Your task to perform on an android device: toggle data saver in the chrome app Image 0: 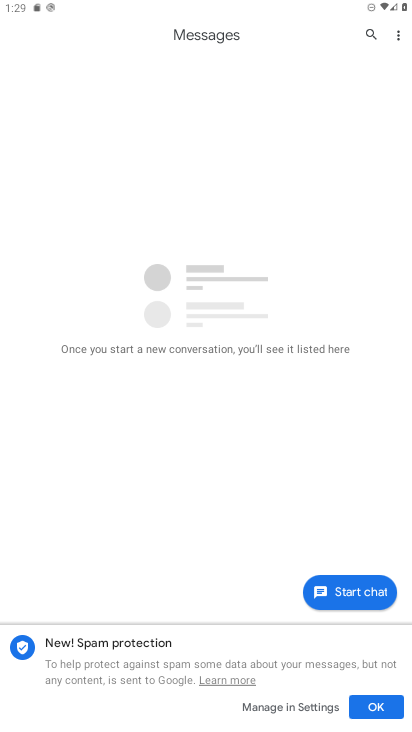
Step 0: press home button
Your task to perform on an android device: toggle data saver in the chrome app Image 1: 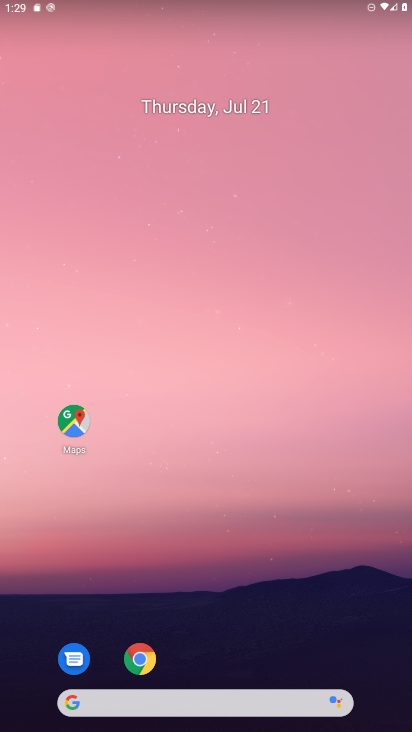
Step 1: click (133, 663)
Your task to perform on an android device: toggle data saver in the chrome app Image 2: 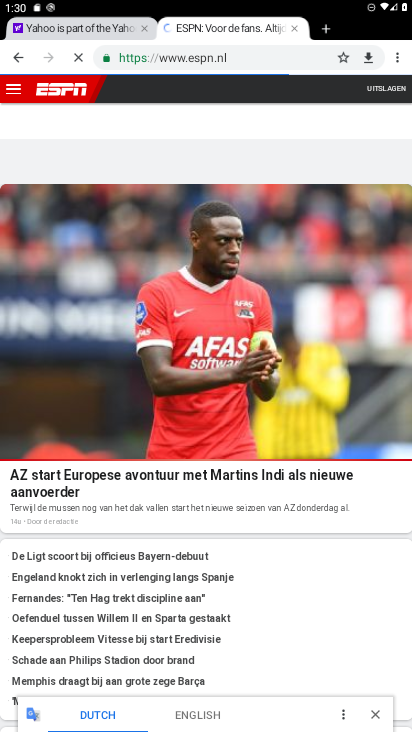
Step 2: click (398, 53)
Your task to perform on an android device: toggle data saver in the chrome app Image 3: 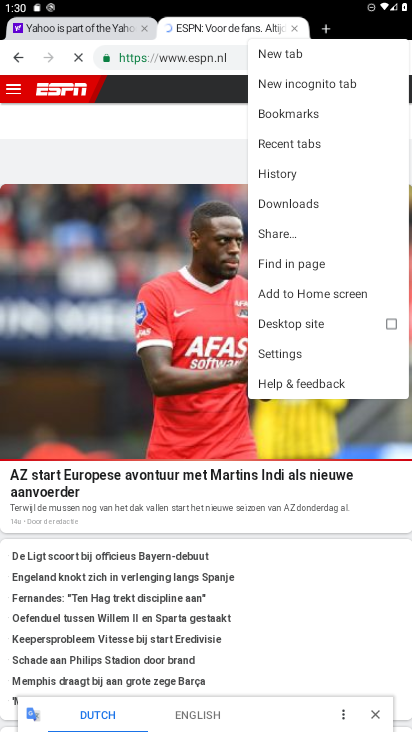
Step 3: click (282, 355)
Your task to perform on an android device: toggle data saver in the chrome app Image 4: 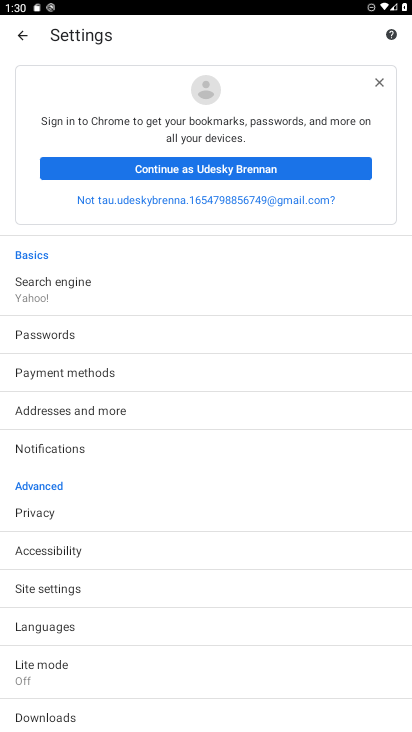
Step 4: drag from (11, 502) to (152, 182)
Your task to perform on an android device: toggle data saver in the chrome app Image 5: 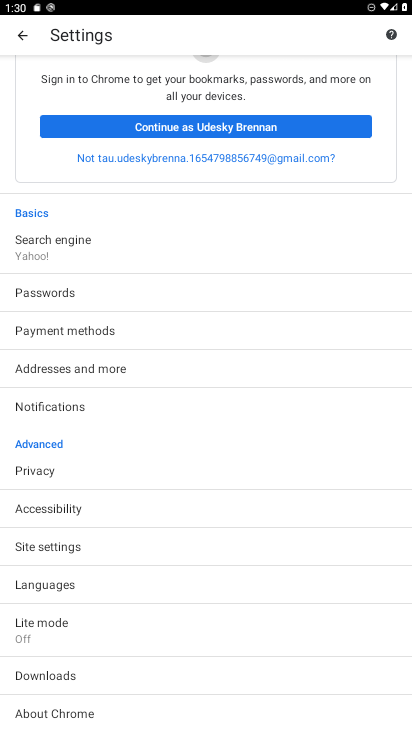
Step 5: click (113, 626)
Your task to perform on an android device: toggle data saver in the chrome app Image 6: 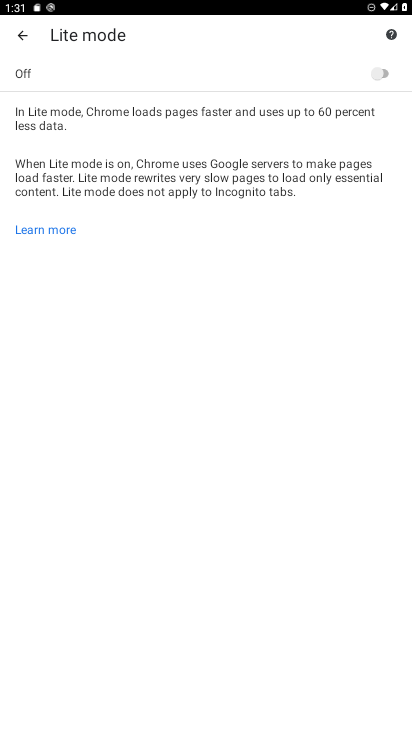
Step 6: click (378, 69)
Your task to perform on an android device: toggle data saver in the chrome app Image 7: 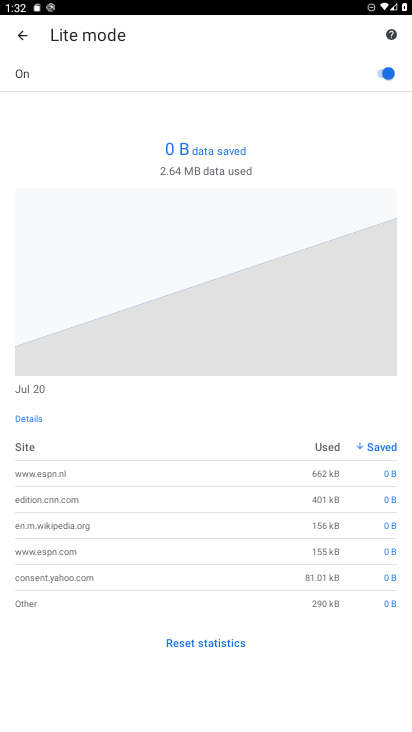
Step 7: task complete